Your task to perform on an android device: change the upload size in google photos Image 0: 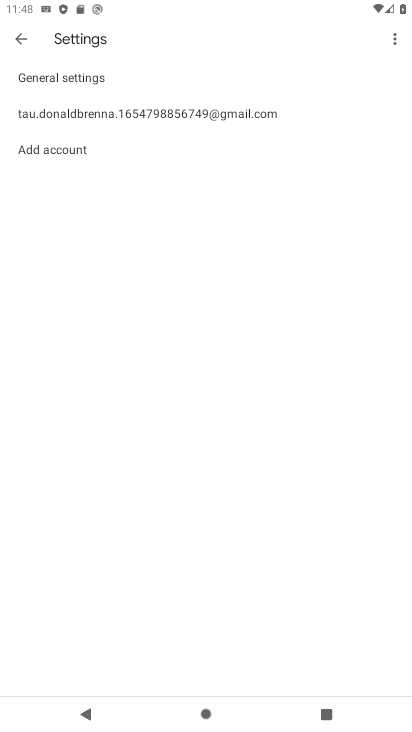
Step 0: press home button
Your task to perform on an android device: change the upload size in google photos Image 1: 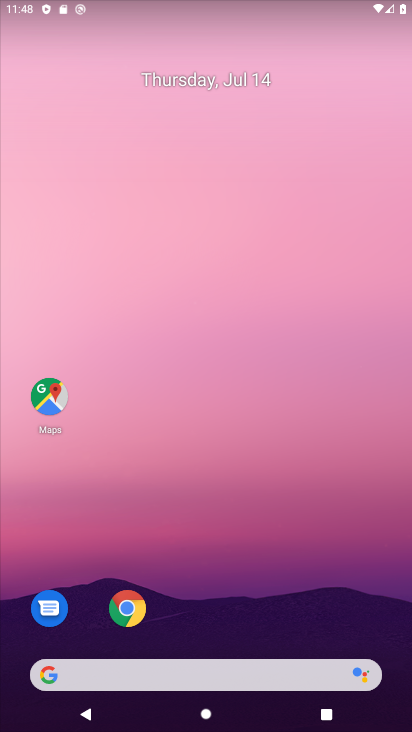
Step 1: drag from (202, 597) to (190, 65)
Your task to perform on an android device: change the upload size in google photos Image 2: 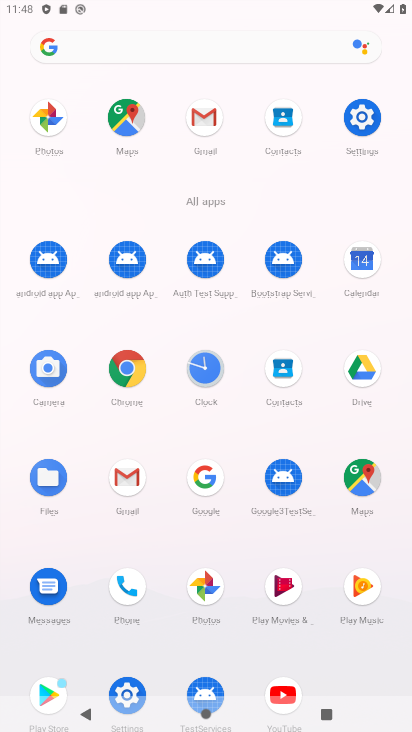
Step 2: click (203, 582)
Your task to perform on an android device: change the upload size in google photos Image 3: 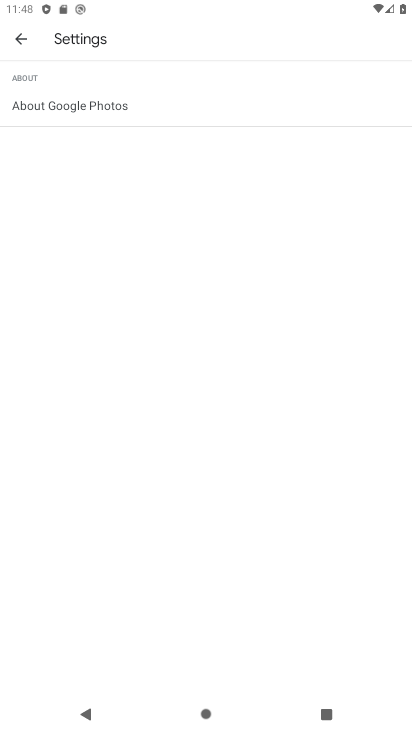
Step 3: press back button
Your task to perform on an android device: change the upload size in google photos Image 4: 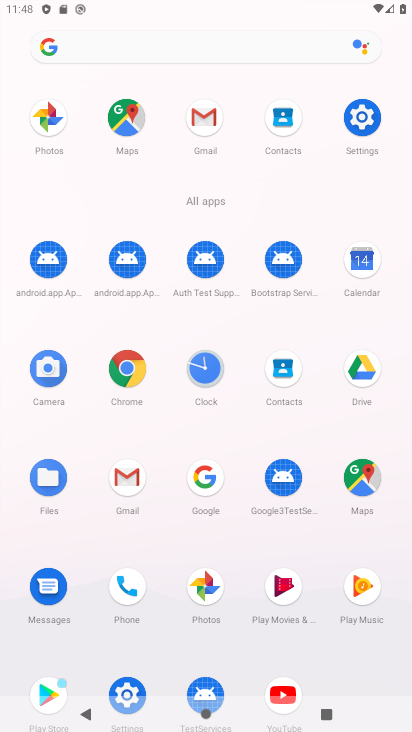
Step 4: click (203, 589)
Your task to perform on an android device: change the upload size in google photos Image 5: 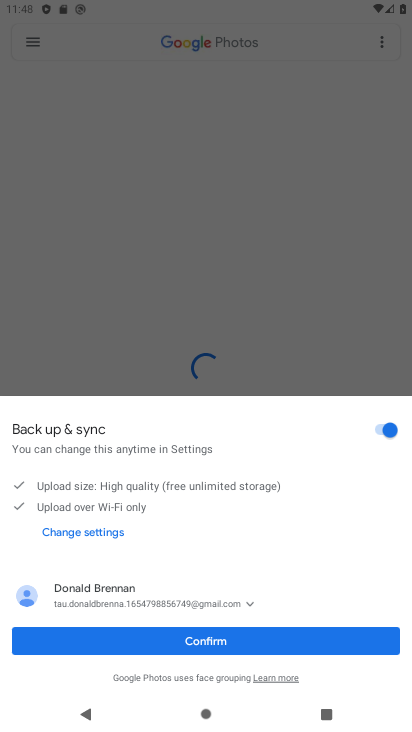
Step 5: click (199, 636)
Your task to perform on an android device: change the upload size in google photos Image 6: 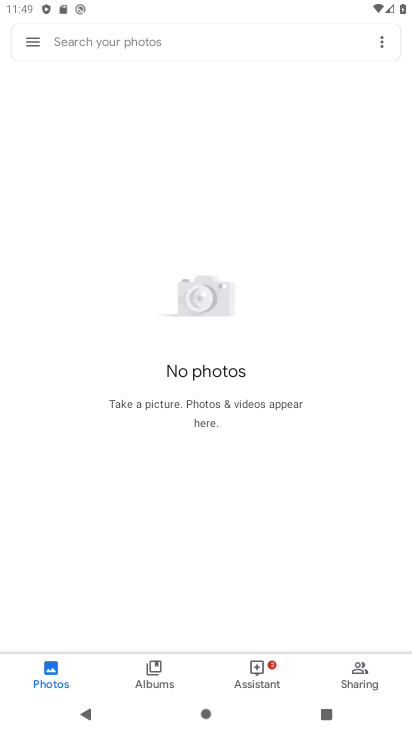
Step 6: click (29, 43)
Your task to perform on an android device: change the upload size in google photos Image 7: 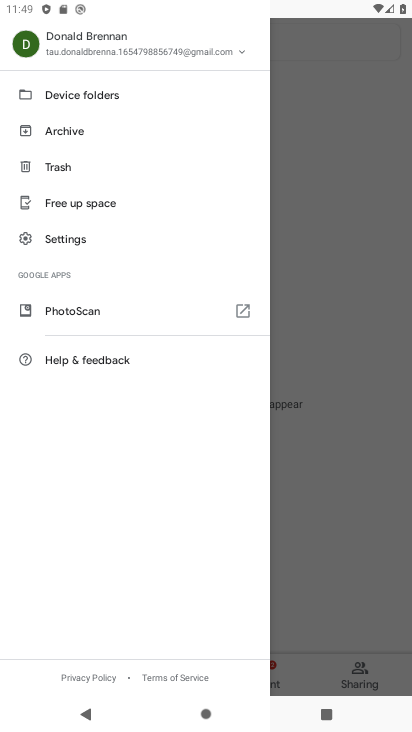
Step 7: click (61, 238)
Your task to perform on an android device: change the upload size in google photos Image 8: 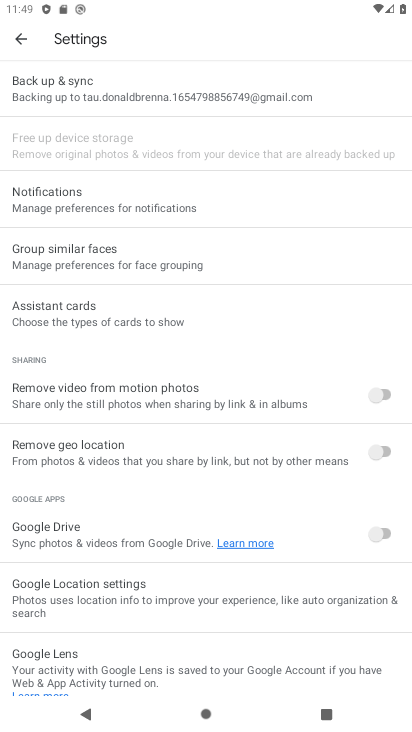
Step 8: click (95, 94)
Your task to perform on an android device: change the upload size in google photos Image 9: 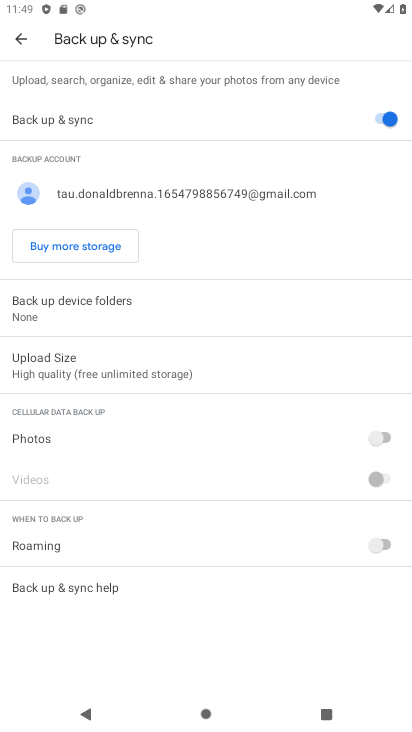
Step 9: click (95, 362)
Your task to perform on an android device: change the upload size in google photos Image 10: 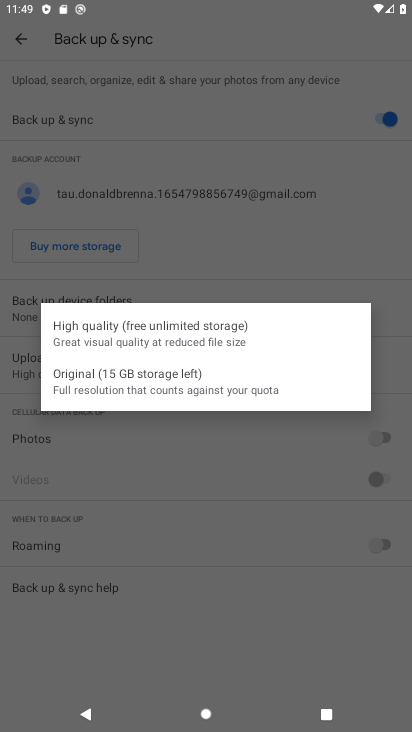
Step 10: click (126, 389)
Your task to perform on an android device: change the upload size in google photos Image 11: 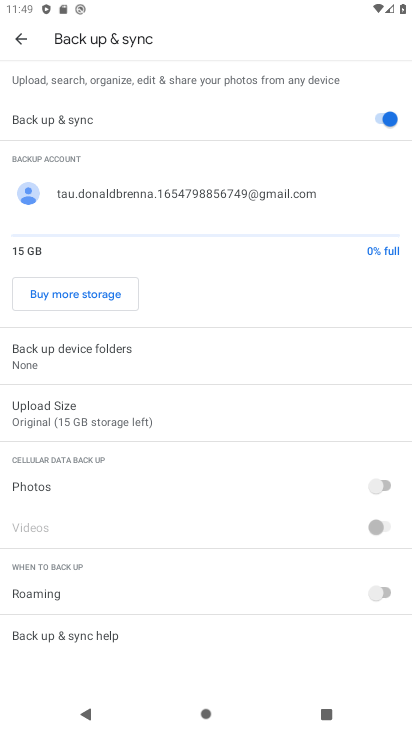
Step 11: task complete